Your task to perform on an android device: change the clock display to show seconds Image 0: 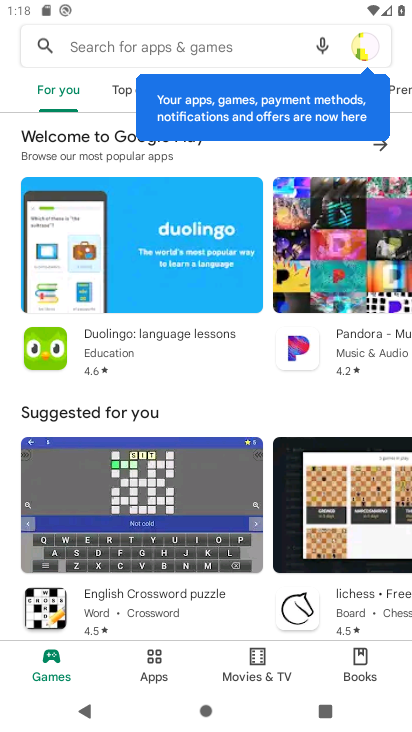
Step 0: press home button
Your task to perform on an android device: change the clock display to show seconds Image 1: 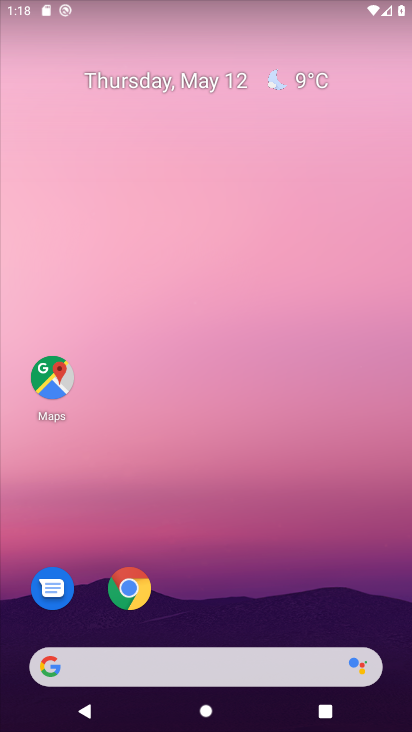
Step 1: drag from (366, 558) to (408, 164)
Your task to perform on an android device: change the clock display to show seconds Image 2: 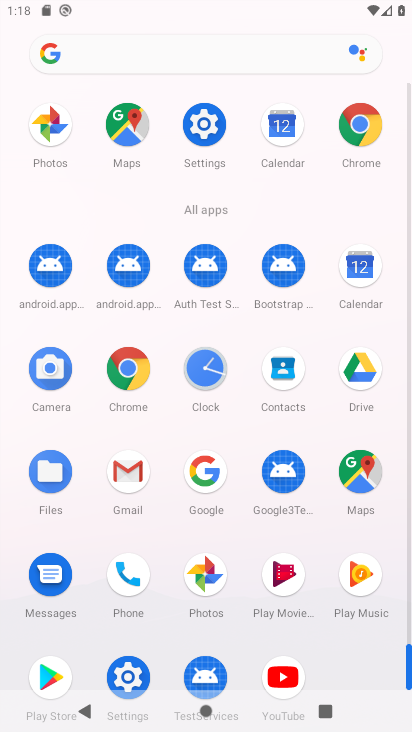
Step 2: click (197, 370)
Your task to perform on an android device: change the clock display to show seconds Image 3: 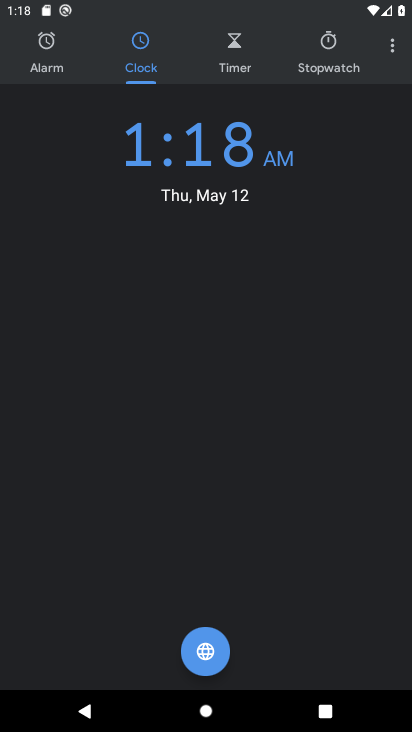
Step 3: click (389, 43)
Your task to perform on an android device: change the clock display to show seconds Image 4: 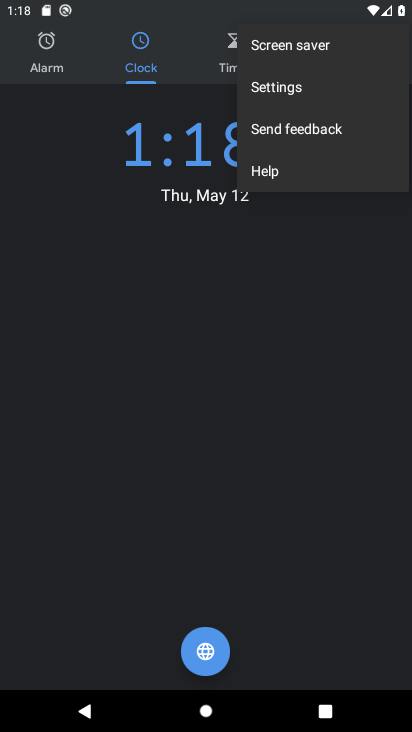
Step 4: click (292, 93)
Your task to perform on an android device: change the clock display to show seconds Image 5: 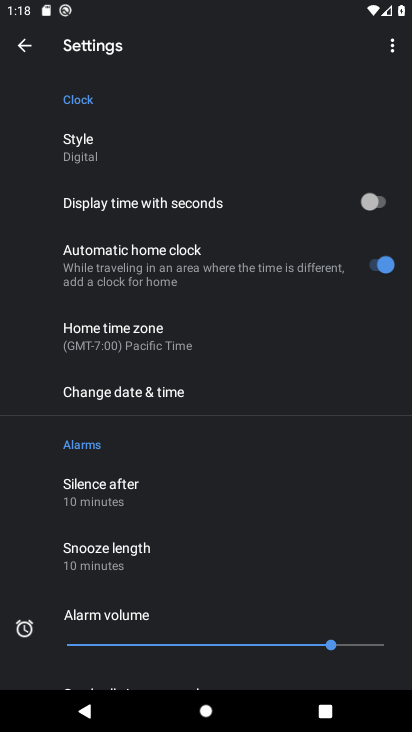
Step 5: click (69, 147)
Your task to perform on an android device: change the clock display to show seconds Image 6: 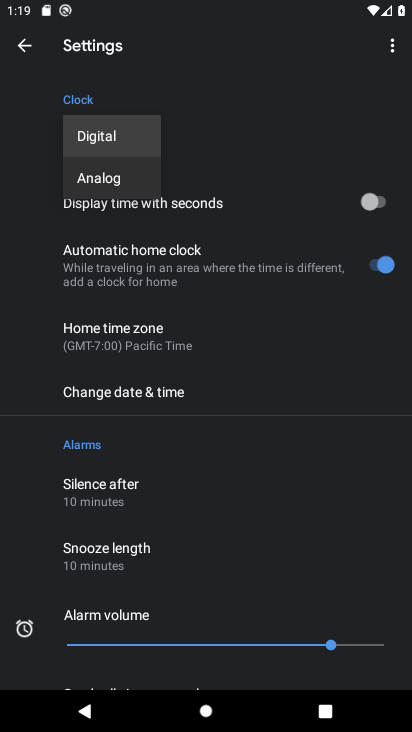
Step 6: click (382, 193)
Your task to perform on an android device: change the clock display to show seconds Image 7: 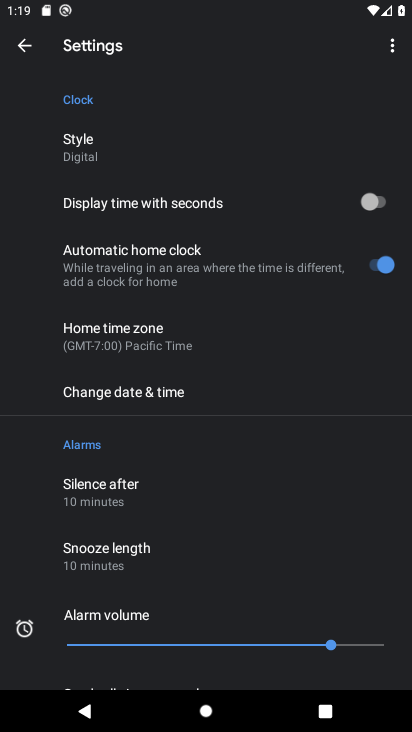
Step 7: task complete